Your task to perform on an android device: Open calendar and show me the third week of next month Image 0: 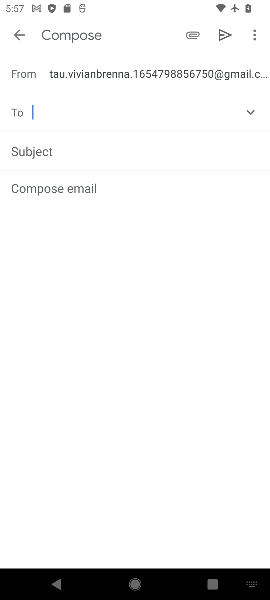
Step 0: press home button
Your task to perform on an android device: Open calendar and show me the third week of next month Image 1: 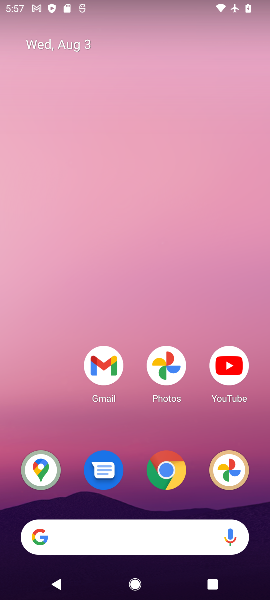
Step 1: drag from (13, 392) to (139, 118)
Your task to perform on an android device: Open calendar and show me the third week of next month Image 2: 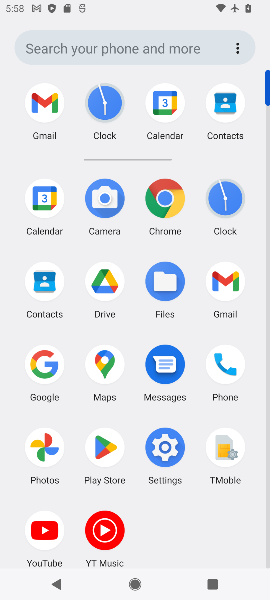
Step 2: click (159, 96)
Your task to perform on an android device: Open calendar and show me the third week of next month Image 3: 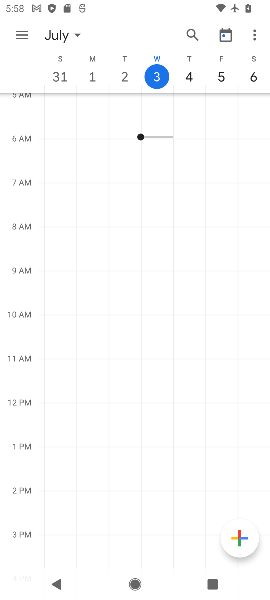
Step 3: click (49, 32)
Your task to perform on an android device: Open calendar and show me the third week of next month Image 4: 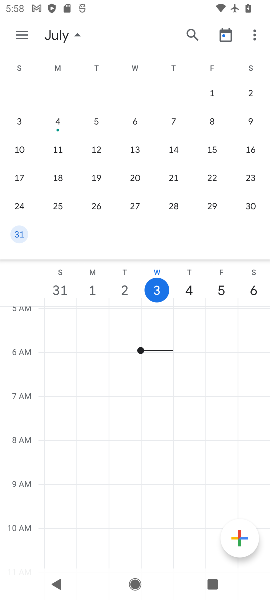
Step 4: drag from (235, 184) to (54, 165)
Your task to perform on an android device: Open calendar and show me the third week of next month Image 5: 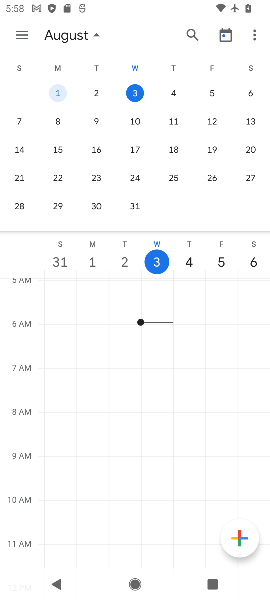
Step 5: drag from (238, 154) to (3, 153)
Your task to perform on an android device: Open calendar and show me the third week of next month Image 6: 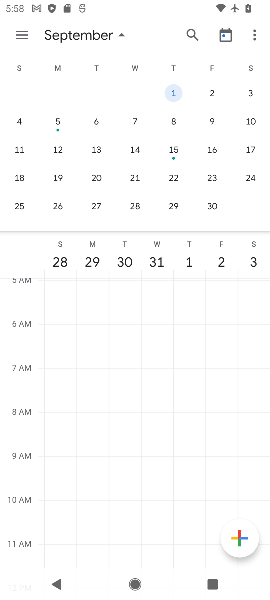
Step 6: click (93, 141)
Your task to perform on an android device: Open calendar and show me the third week of next month Image 7: 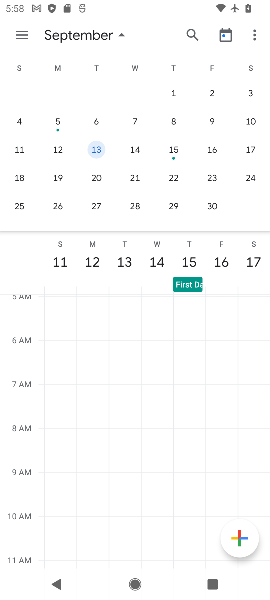
Step 7: click (201, 89)
Your task to perform on an android device: Open calendar and show me the third week of next month Image 8: 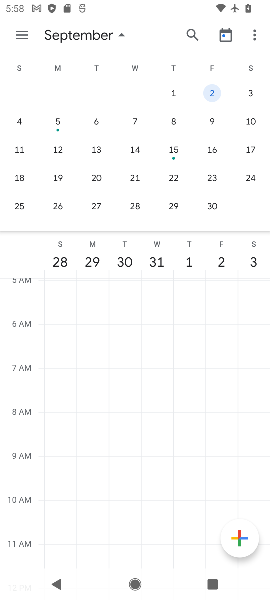
Step 8: click (131, 122)
Your task to perform on an android device: Open calendar and show me the third week of next month Image 9: 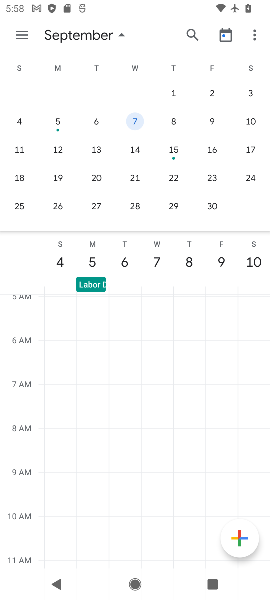
Step 9: click (135, 150)
Your task to perform on an android device: Open calendar and show me the third week of next month Image 10: 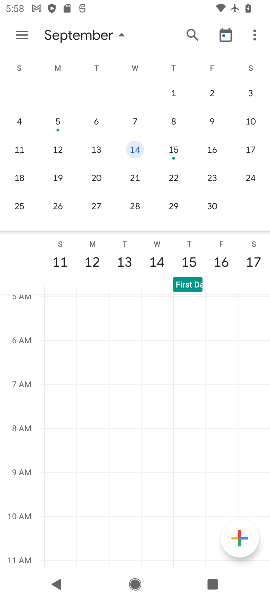
Step 10: click (61, 170)
Your task to perform on an android device: Open calendar and show me the third week of next month Image 11: 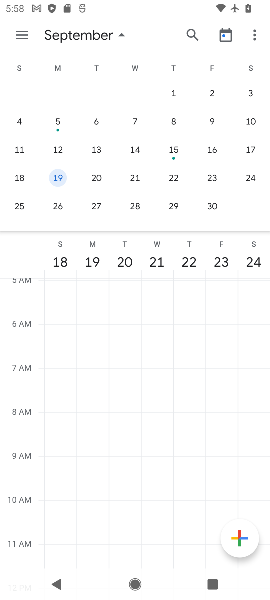
Step 11: task complete